Your task to perform on an android device: Go to settings Image 0: 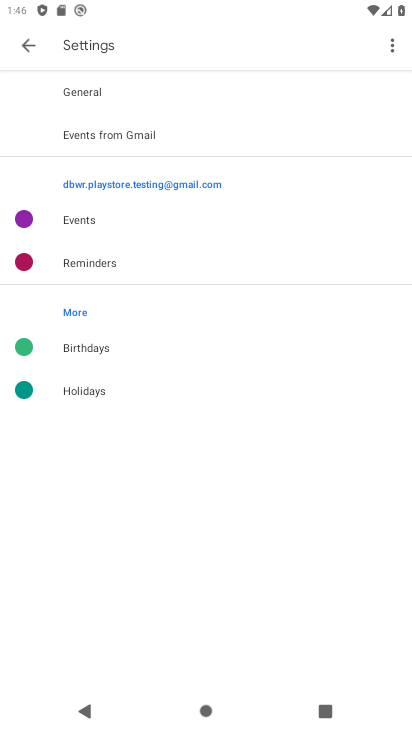
Step 0: press home button
Your task to perform on an android device: Go to settings Image 1: 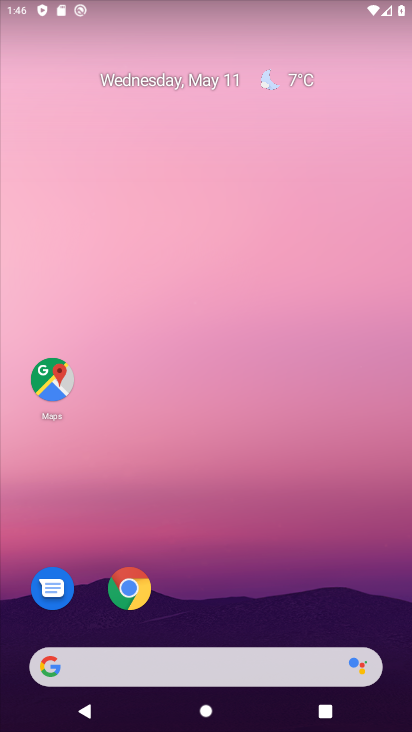
Step 1: drag from (203, 612) to (236, 185)
Your task to perform on an android device: Go to settings Image 2: 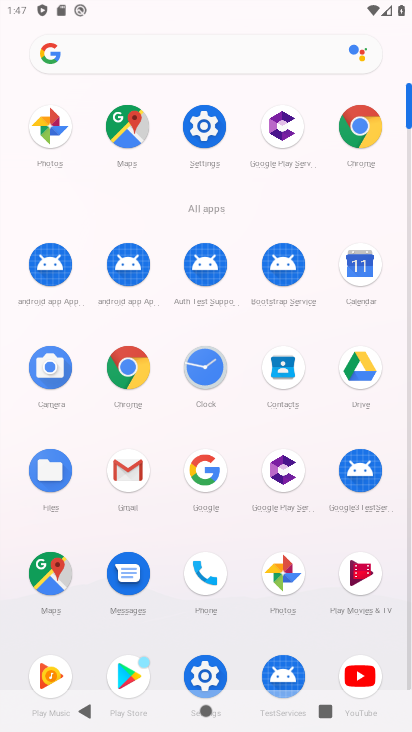
Step 2: click (213, 140)
Your task to perform on an android device: Go to settings Image 3: 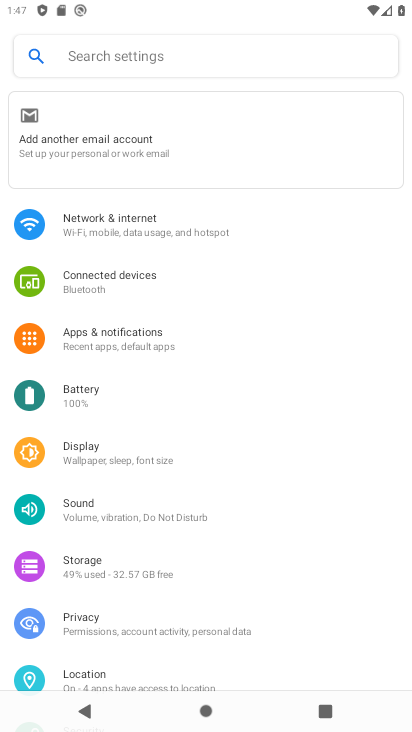
Step 3: task complete